Your task to perform on an android device: Open settings Image 0: 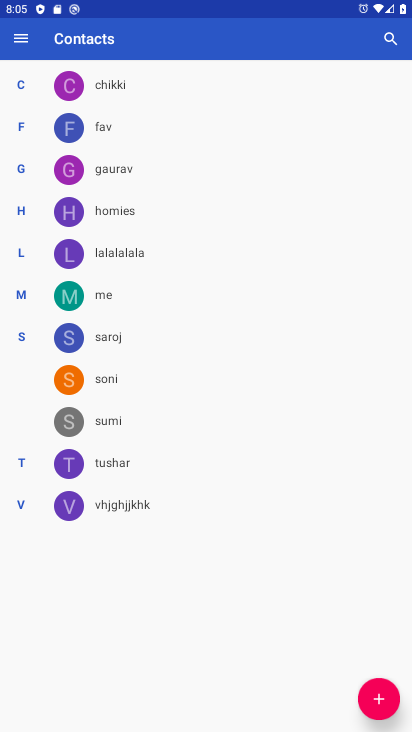
Step 0: press home button
Your task to perform on an android device: Open settings Image 1: 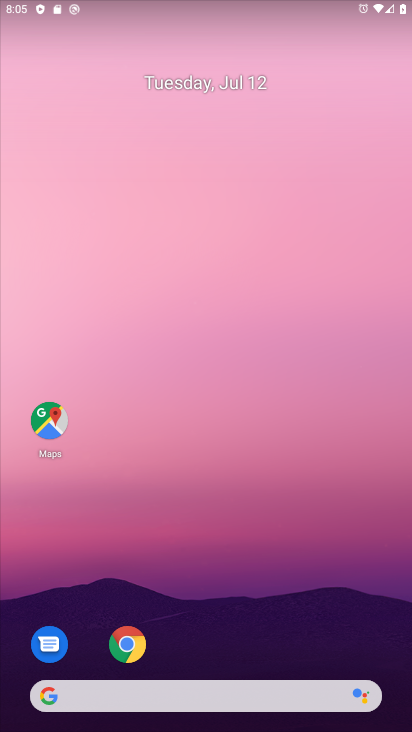
Step 1: drag from (25, 720) to (244, 126)
Your task to perform on an android device: Open settings Image 2: 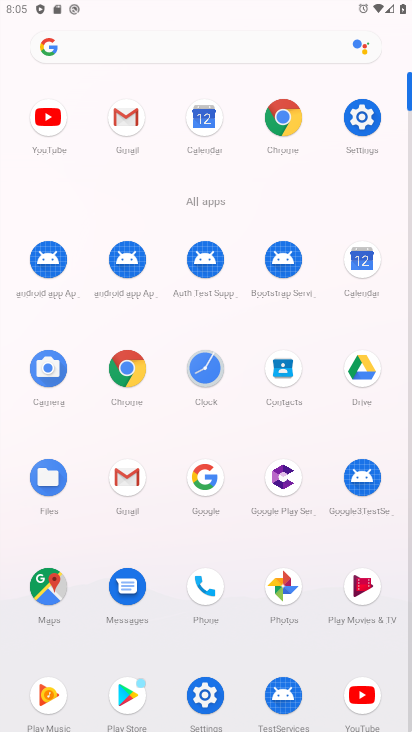
Step 2: click (211, 690)
Your task to perform on an android device: Open settings Image 3: 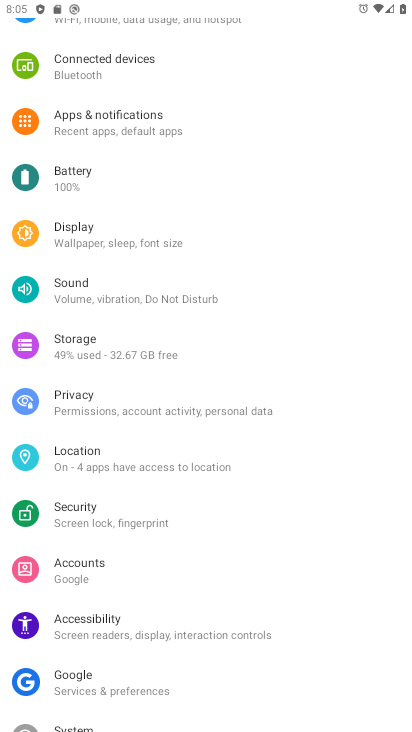
Step 3: task complete